Your task to perform on an android device: turn on showing notifications on the lock screen Image 0: 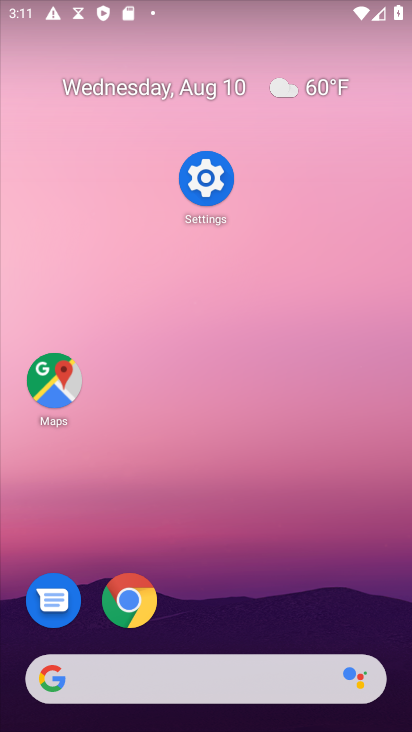
Step 0: press home button
Your task to perform on an android device: turn on showing notifications on the lock screen Image 1: 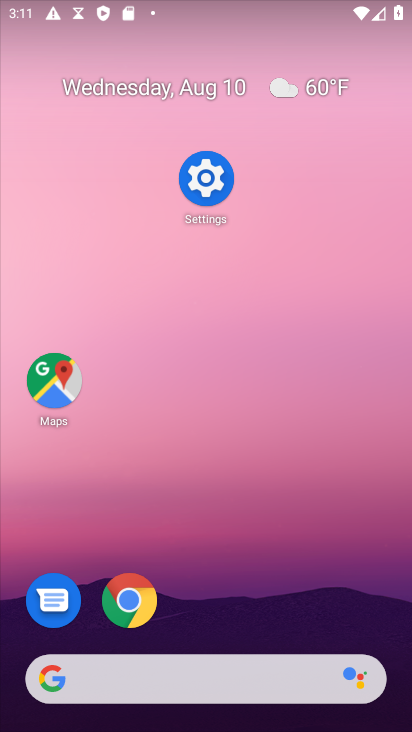
Step 1: click (202, 189)
Your task to perform on an android device: turn on showing notifications on the lock screen Image 2: 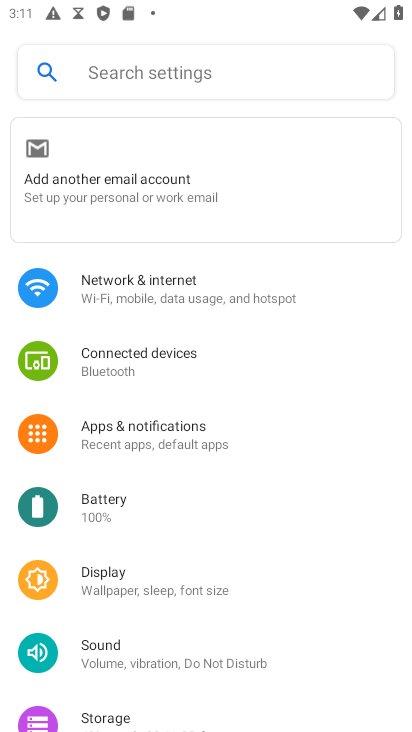
Step 2: click (129, 429)
Your task to perform on an android device: turn on showing notifications on the lock screen Image 3: 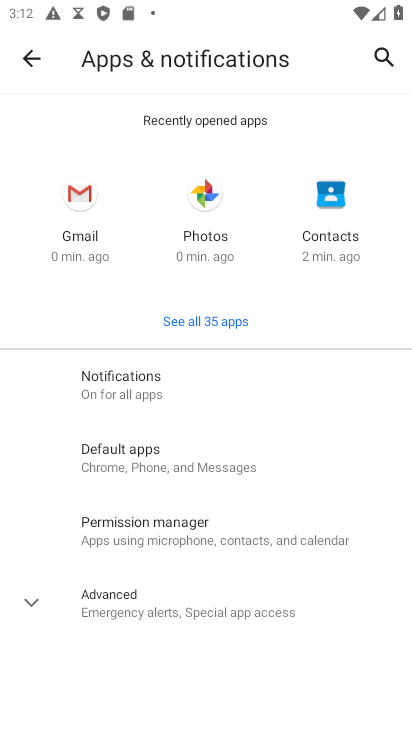
Step 3: click (116, 387)
Your task to perform on an android device: turn on showing notifications on the lock screen Image 4: 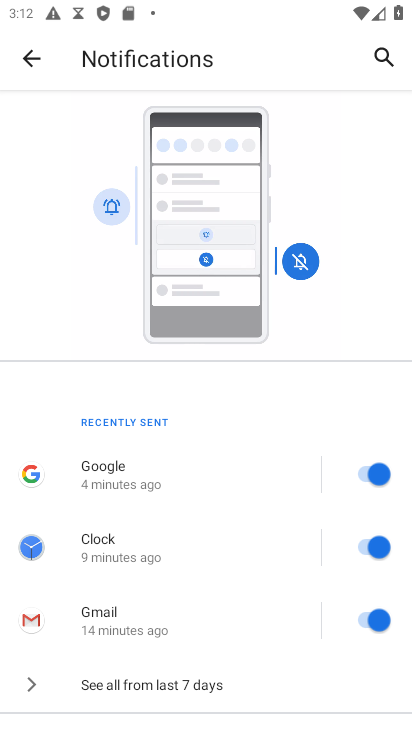
Step 4: drag from (279, 710) to (200, 164)
Your task to perform on an android device: turn on showing notifications on the lock screen Image 5: 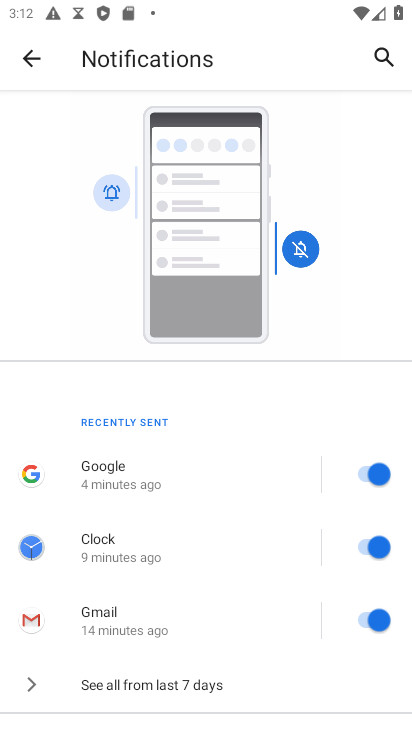
Step 5: drag from (260, 619) to (259, 27)
Your task to perform on an android device: turn on showing notifications on the lock screen Image 6: 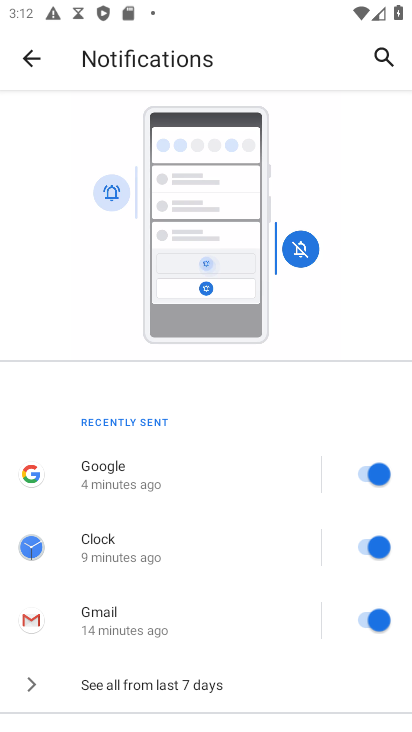
Step 6: drag from (306, 677) to (270, 98)
Your task to perform on an android device: turn on showing notifications on the lock screen Image 7: 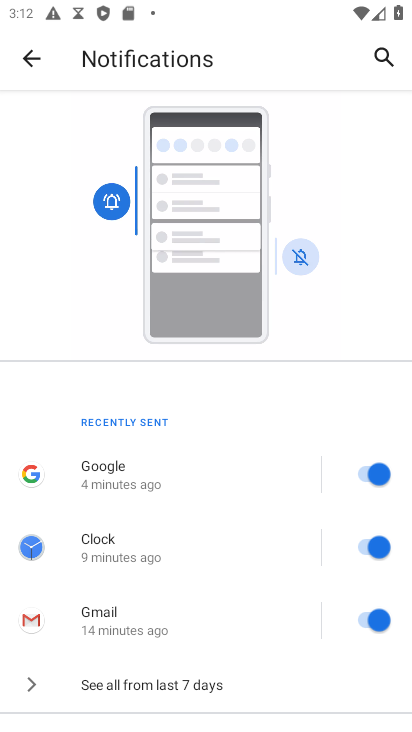
Step 7: drag from (286, 629) to (292, 140)
Your task to perform on an android device: turn on showing notifications on the lock screen Image 8: 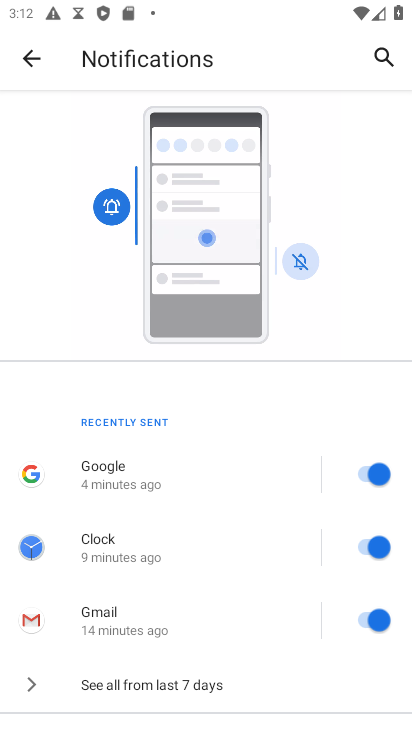
Step 8: drag from (329, 676) to (348, 122)
Your task to perform on an android device: turn on showing notifications on the lock screen Image 9: 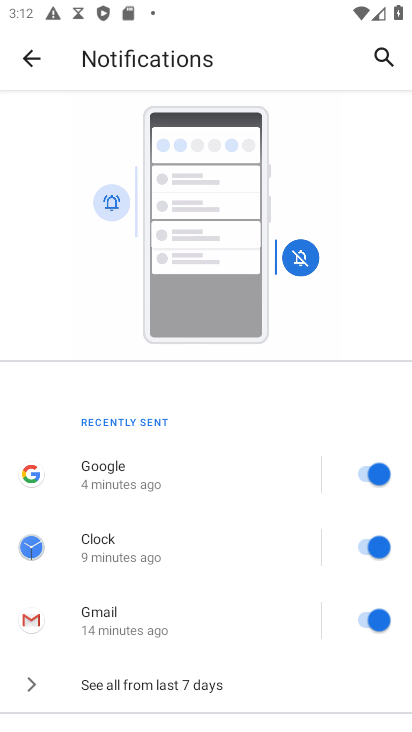
Step 9: drag from (298, 668) to (296, 121)
Your task to perform on an android device: turn on showing notifications on the lock screen Image 10: 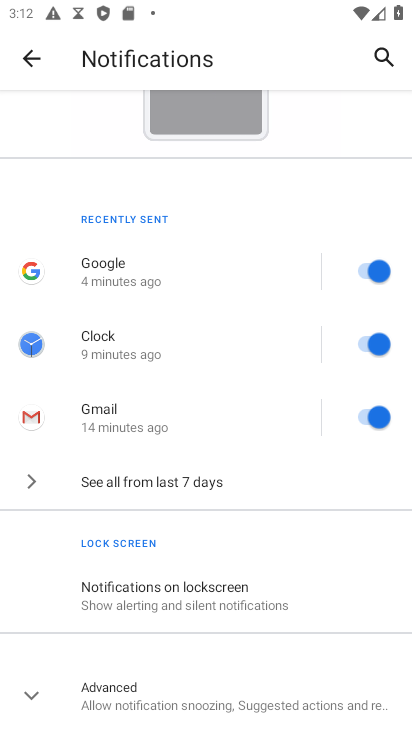
Step 10: click (189, 604)
Your task to perform on an android device: turn on showing notifications on the lock screen Image 11: 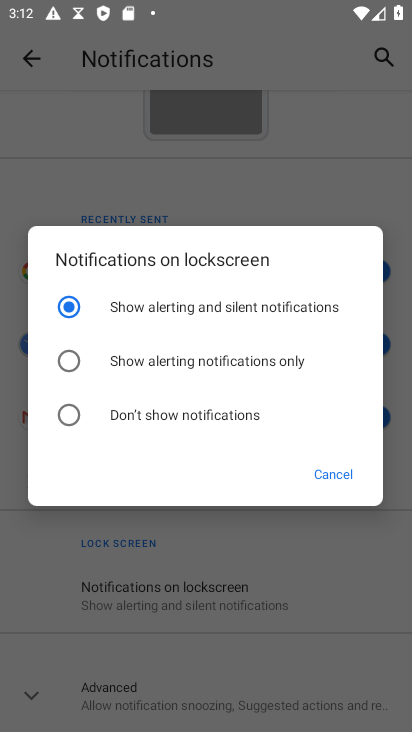
Step 11: task complete